Your task to perform on an android device: change notifications settings Image 0: 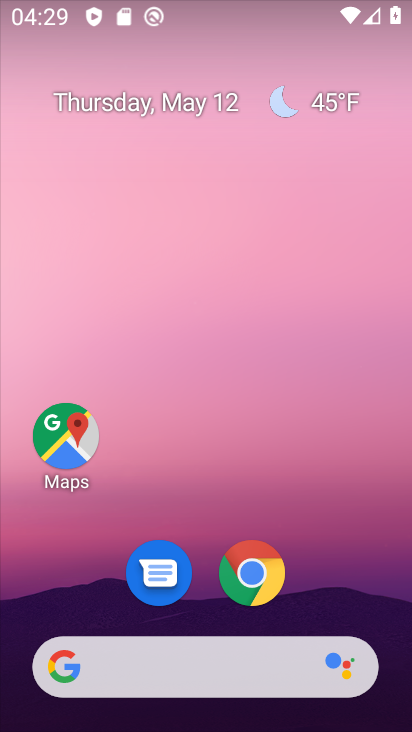
Step 0: drag from (392, 641) to (279, 116)
Your task to perform on an android device: change notifications settings Image 1: 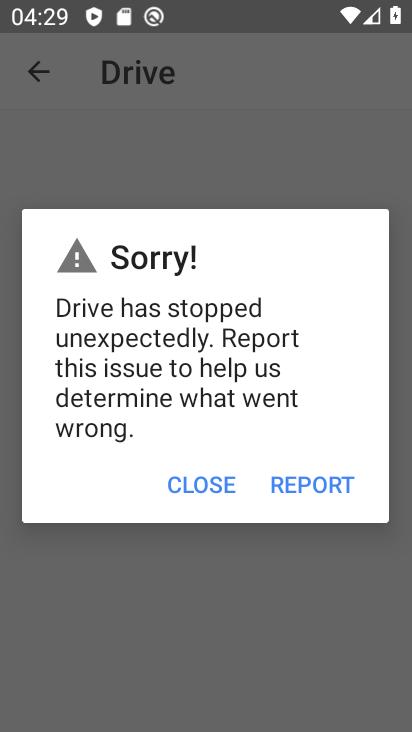
Step 1: press home button
Your task to perform on an android device: change notifications settings Image 2: 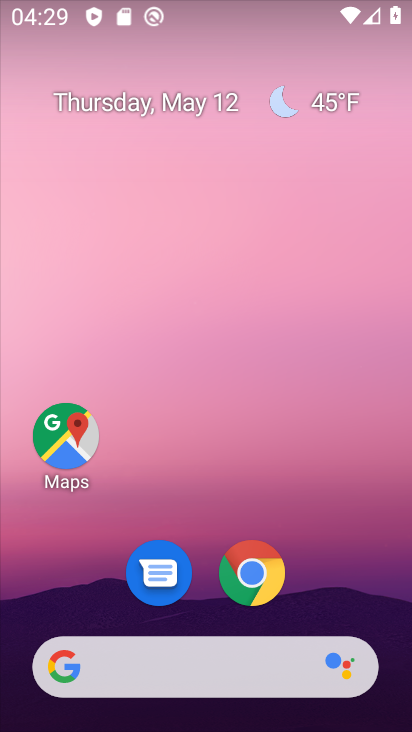
Step 2: drag from (383, 633) to (312, 50)
Your task to perform on an android device: change notifications settings Image 3: 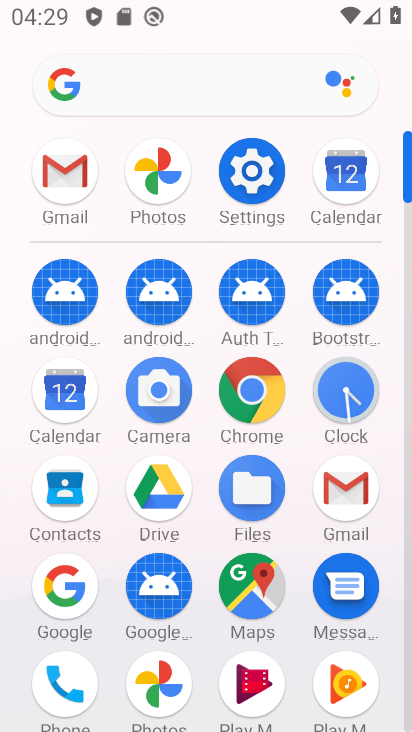
Step 3: click (409, 702)
Your task to perform on an android device: change notifications settings Image 4: 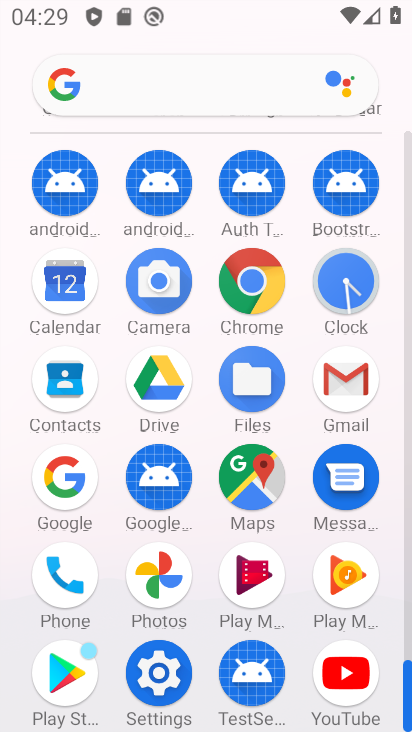
Step 4: click (156, 669)
Your task to perform on an android device: change notifications settings Image 5: 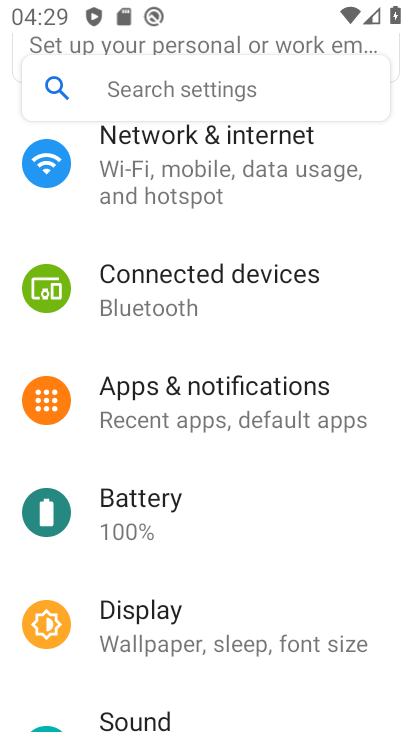
Step 5: click (173, 395)
Your task to perform on an android device: change notifications settings Image 6: 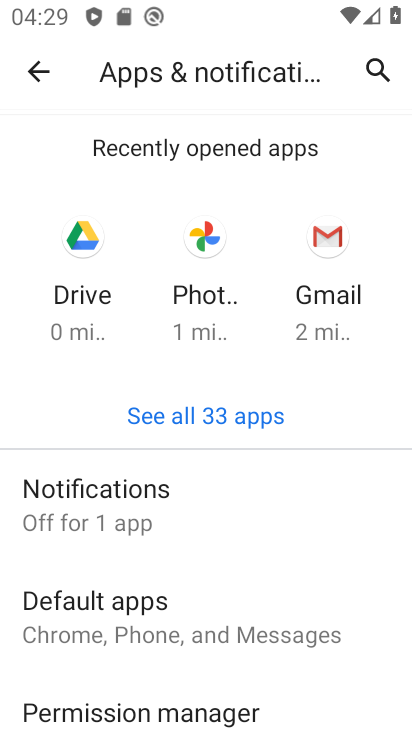
Step 6: click (82, 507)
Your task to perform on an android device: change notifications settings Image 7: 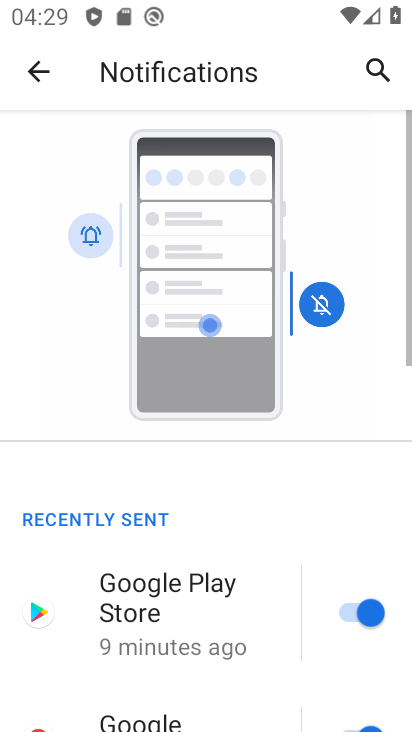
Step 7: drag from (300, 656) to (249, 180)
Your task to perform on an android device: change notifications settings Image 8: 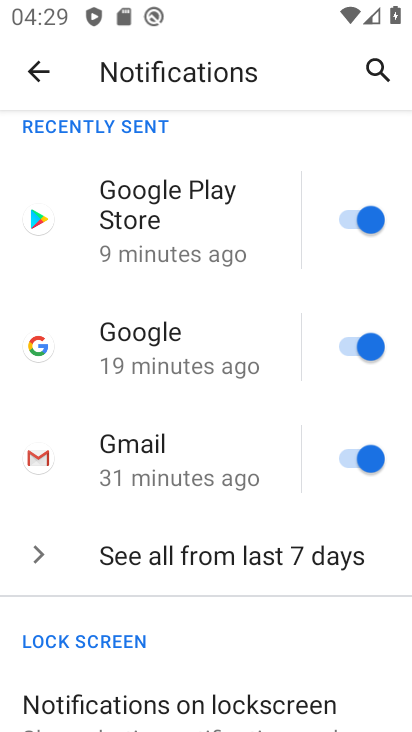
Step 8: drag from (279, 664) to (221, 205)
Your task to perform on an android device: change notifications settings Image 9: 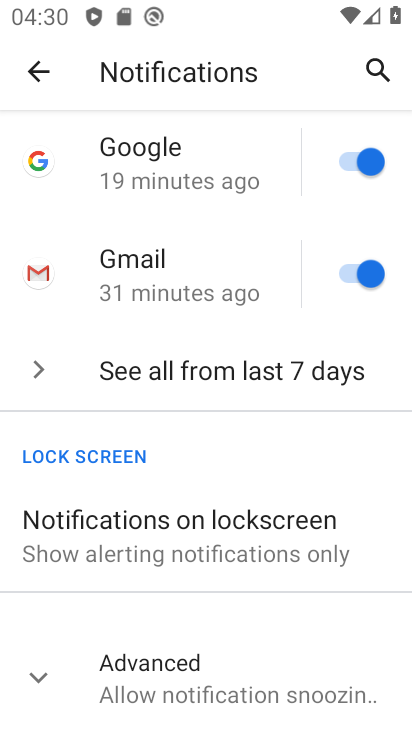
Step 9: click (31, 671)
Your task to perform on an android device: change notifications settings Image 10: 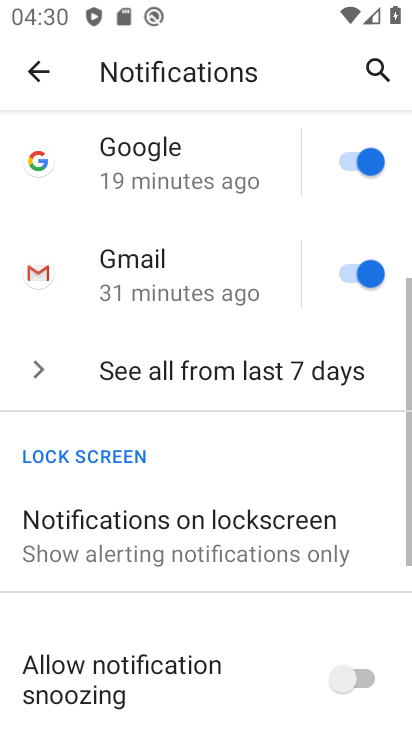
Step 10: task complete